Your task to perform on an android device: Search for Italian restaurants on Maps Image 0: 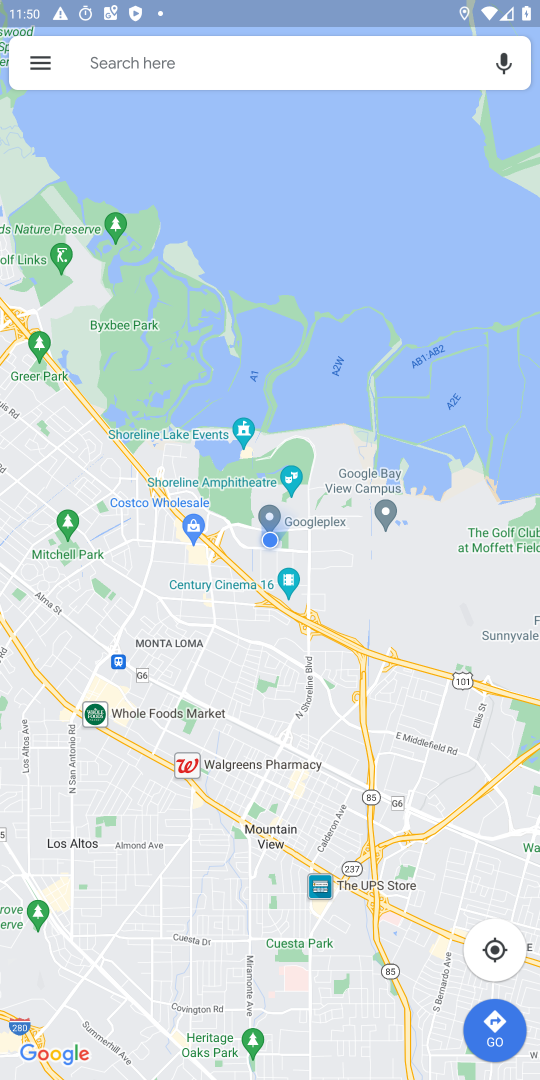
Step 0: click (122, 58)
Your task to perform on an android device: Search for Italian restaurants on Maps Image 1: 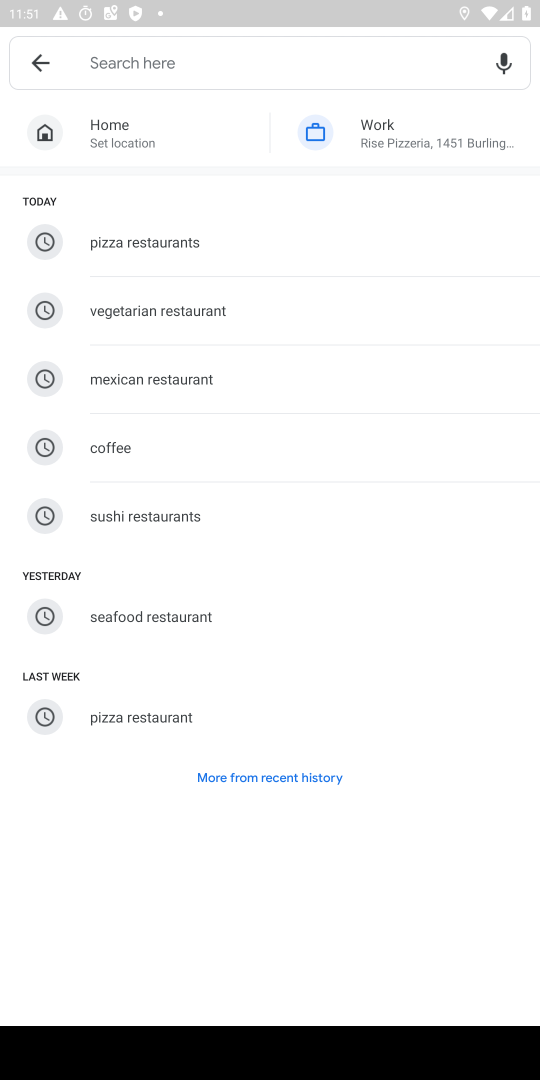
Step 1: type "Italian restaurants"
Your task to perform on an android device: Search for Italian restaurants on Maps Image 2: 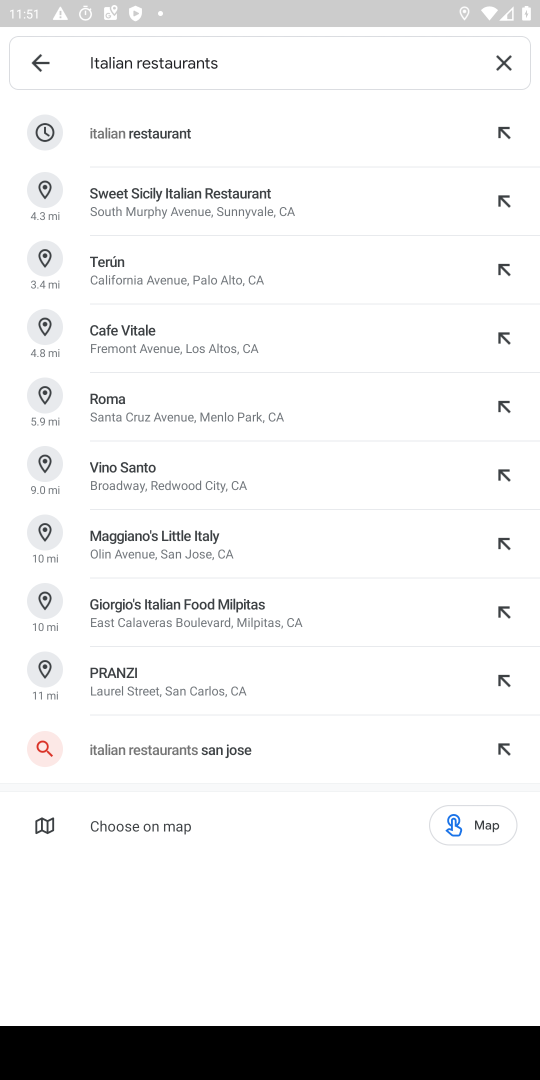
Step 2: type ""
Your task to perform on an android device: Search for Italian restaurants on Maps Image 3: 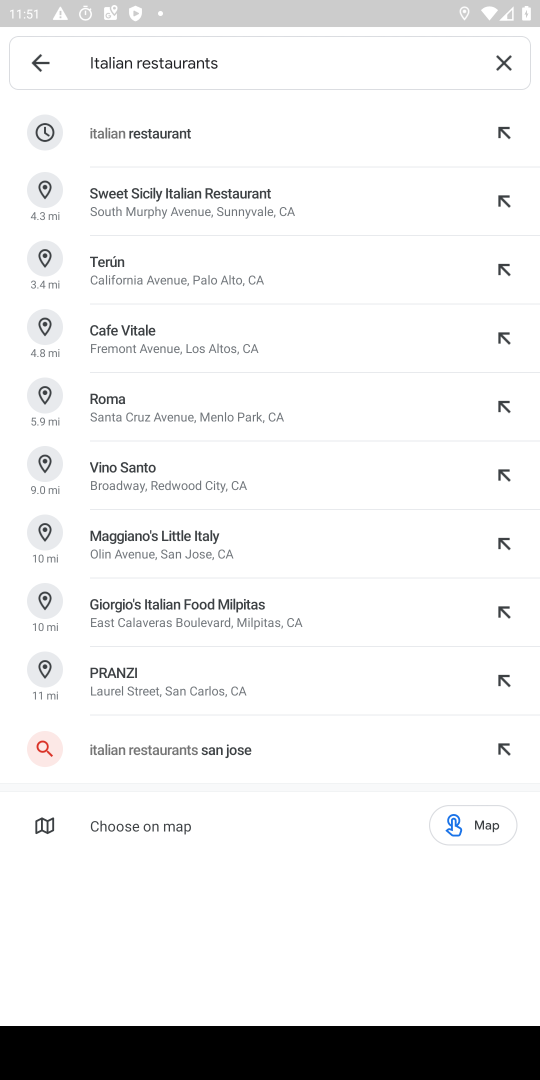
Step 3: type ""
Your task to perform on an android device: Search for Italian restaurants on Maps Image 4: 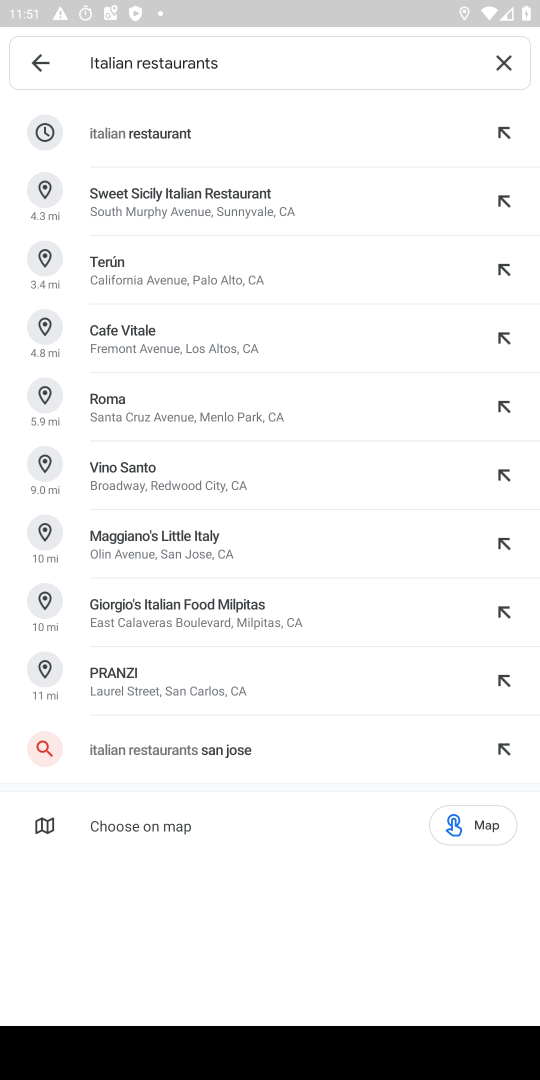
Step 4: task complete